Your task to perform on an android device: turn on sleep mode Image 0: 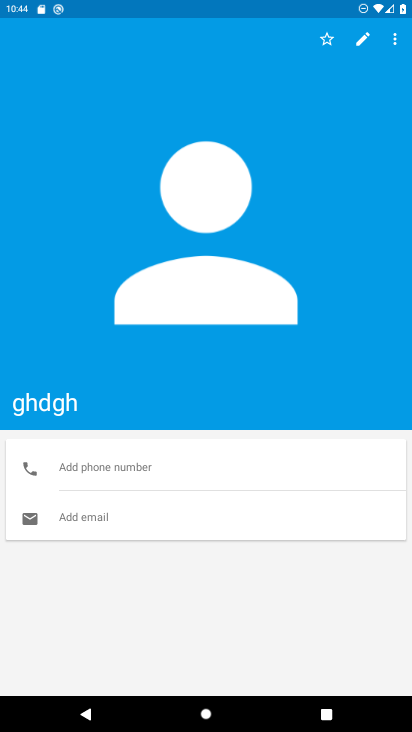
Step 0: press home button
Your task to perform on an android device: turn on sleep mode Image 1: 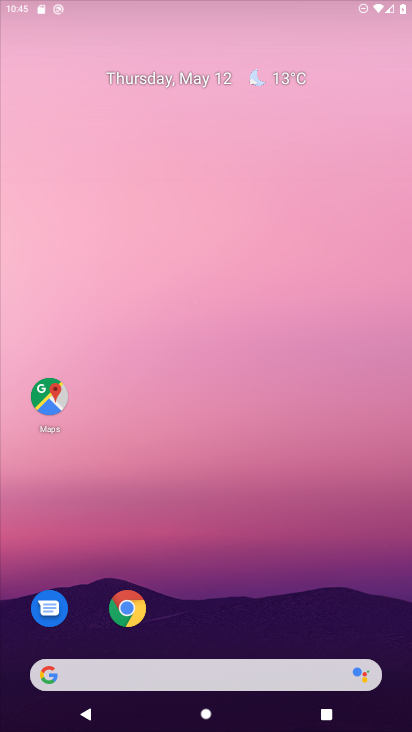
Step 1: drag from (226, 611) to (223, 116)
Your task to perform on an android device: turn on sleep mode Image 2: 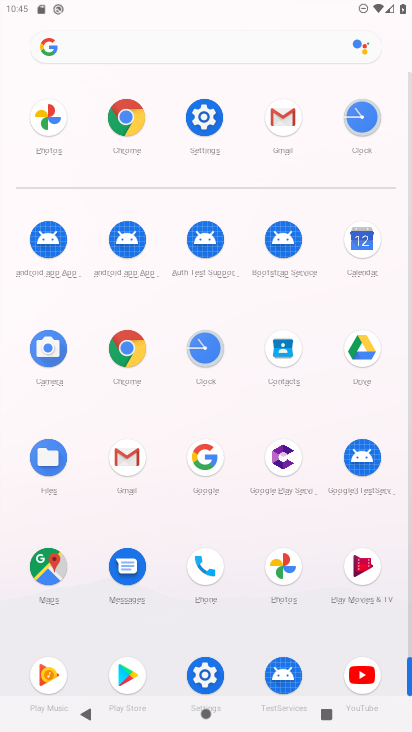
Step 2: click (205, 121)
Your task to perform on an android device: turn on sleep mode Image 3: 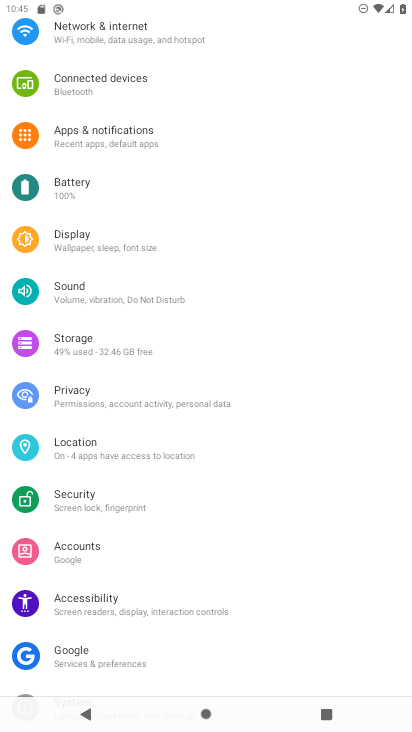
Step 3: click (113, 244)
Your task to perform on an android device: turn on sleep mode Image 4: 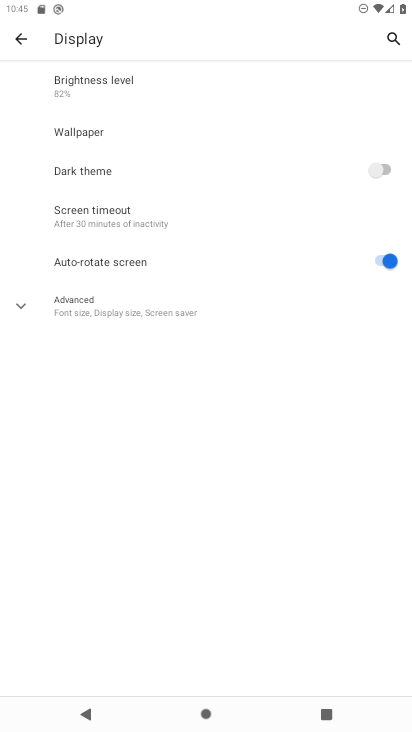
Step 4: click (142, 224)
Your task to perform on an android device: turn on sleep mode Image 5: 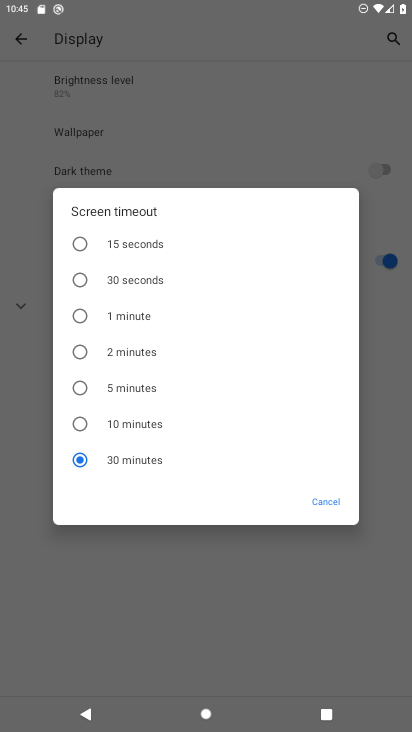
Step 5: task complete